Your task to perform on an android device: open app "Move to iOS" (install if not already installed) Image 0: 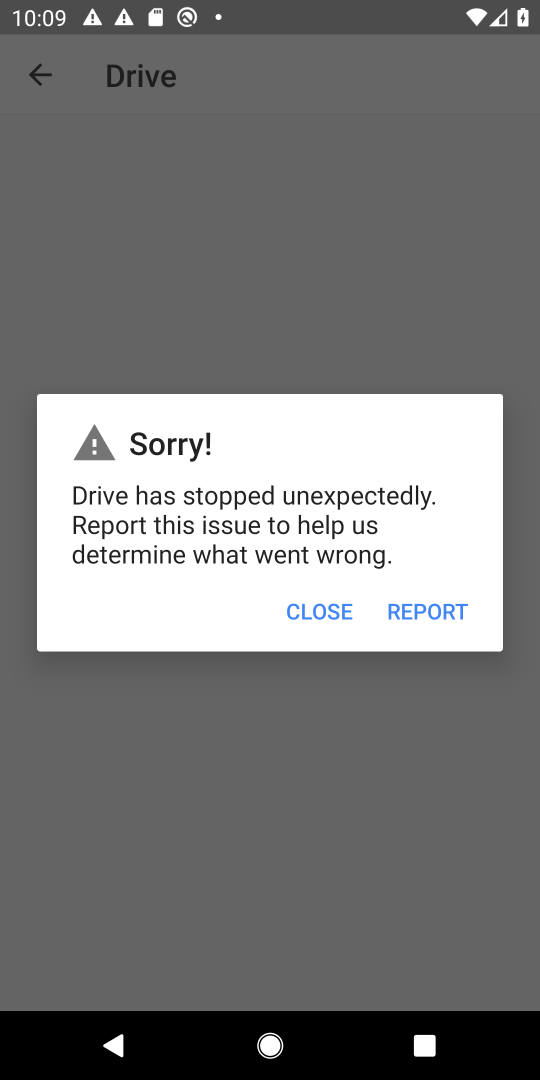
Step 0: press home button
Your task to perform on an android device: open app "Move to iOS" (install if not already installed) Image 1: 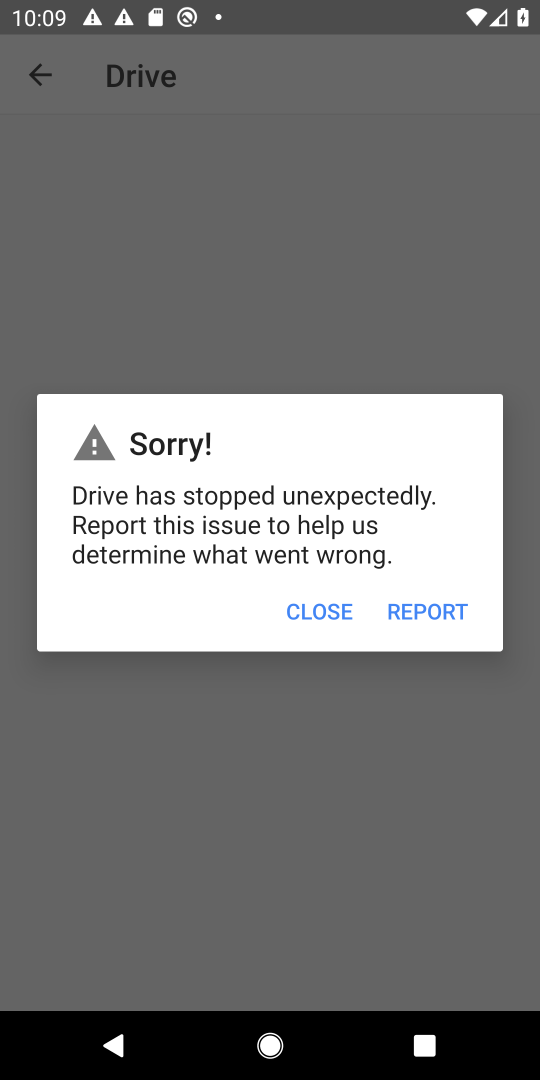
Step 1: press home button
Your task to perform on an android device: open app "Move to iOS" (install if not already installed) Image 2: 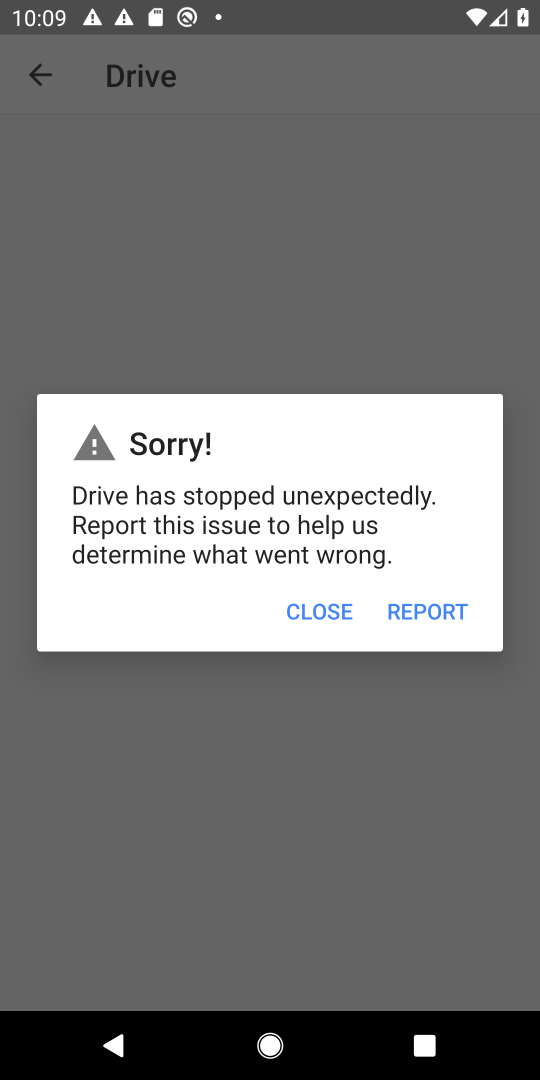
Step 2: drag from (358, 703) to (533, 177)
Your task to perform on an android device: open app "Move to iOS" (install if not already installed) Image 3: 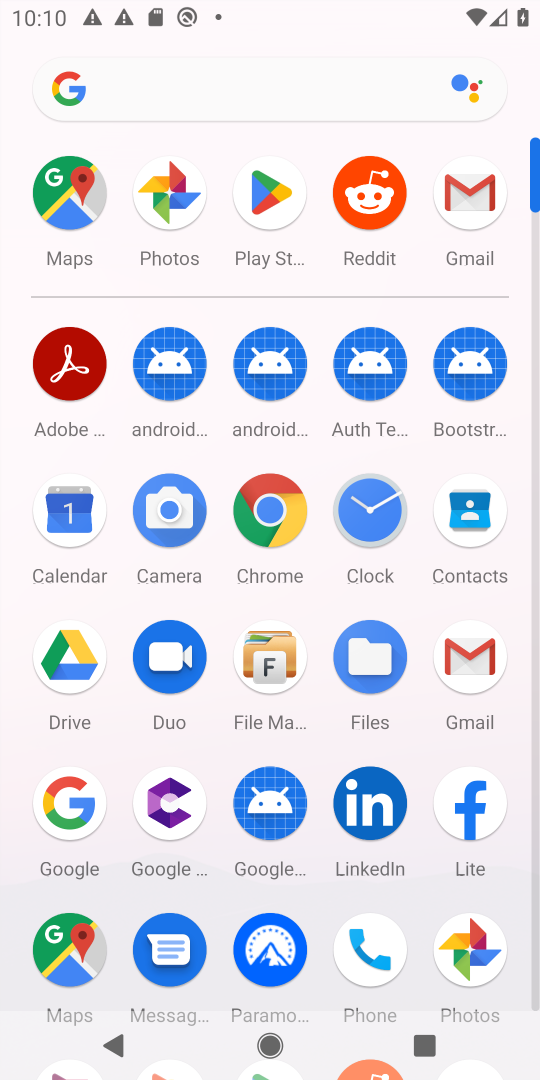
Step 3: press home button
Your task to perform on an android device: open app "Move to iOS" (install if not already installed) Image 4: 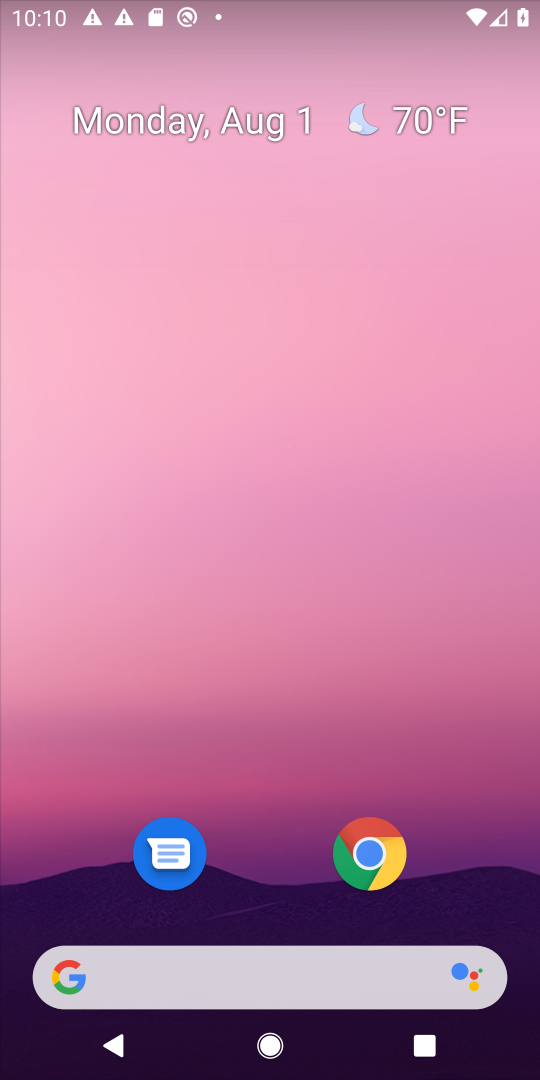
Step 4: drag from (288, 879) to (435, 58)
Your task to perform on an android device: open app "Move to iOS" (install if not already installed) Image 5: 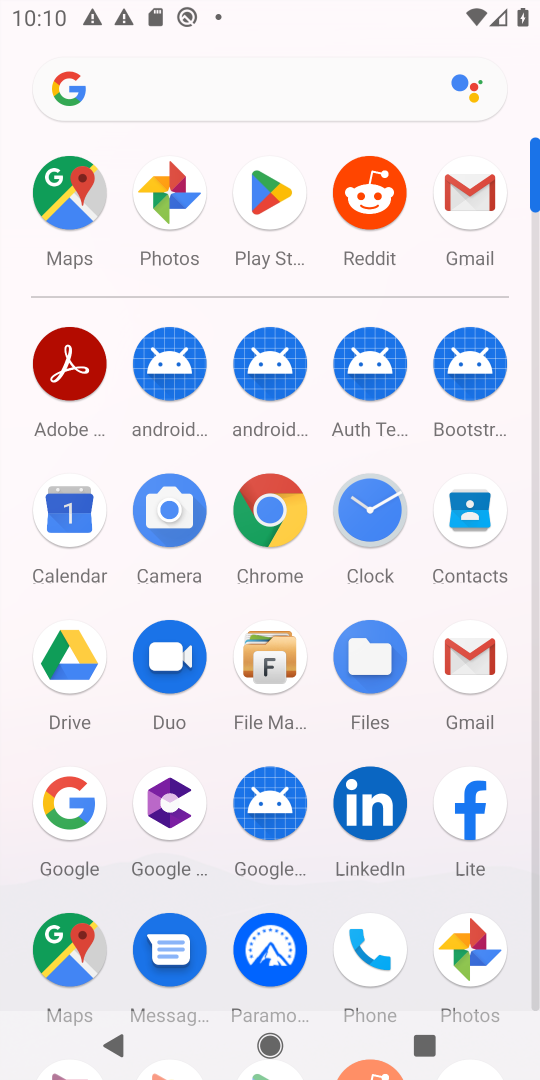
Step 5: click (266, 184)
Your task to perform on an android device: open app "Move to iOS" (install if not already installed) Image 6: 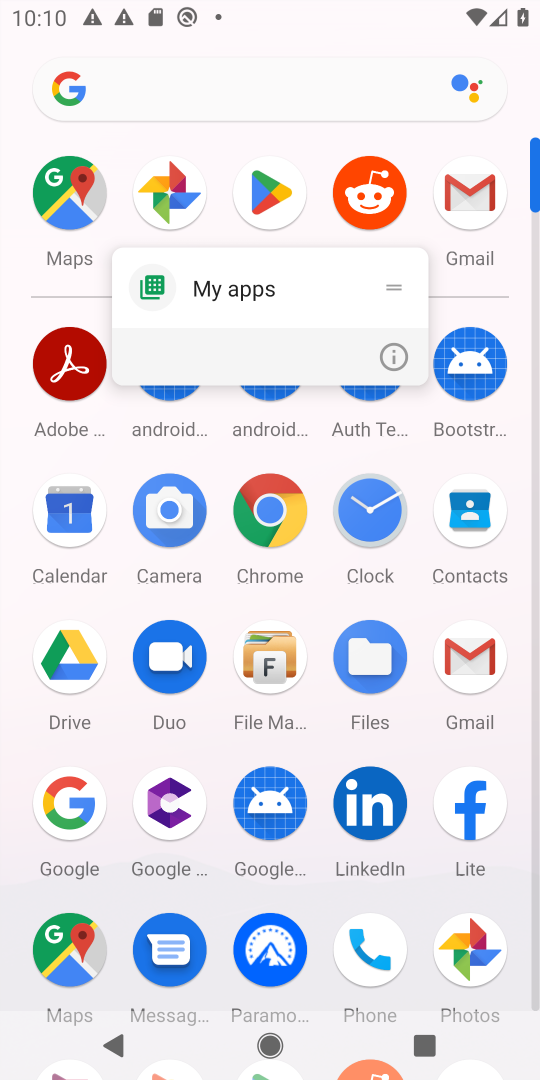
Step 6: click (395, 369)
Your task to perform on an android device: open app "Move to iOS" (install if not already installed) Image 7: 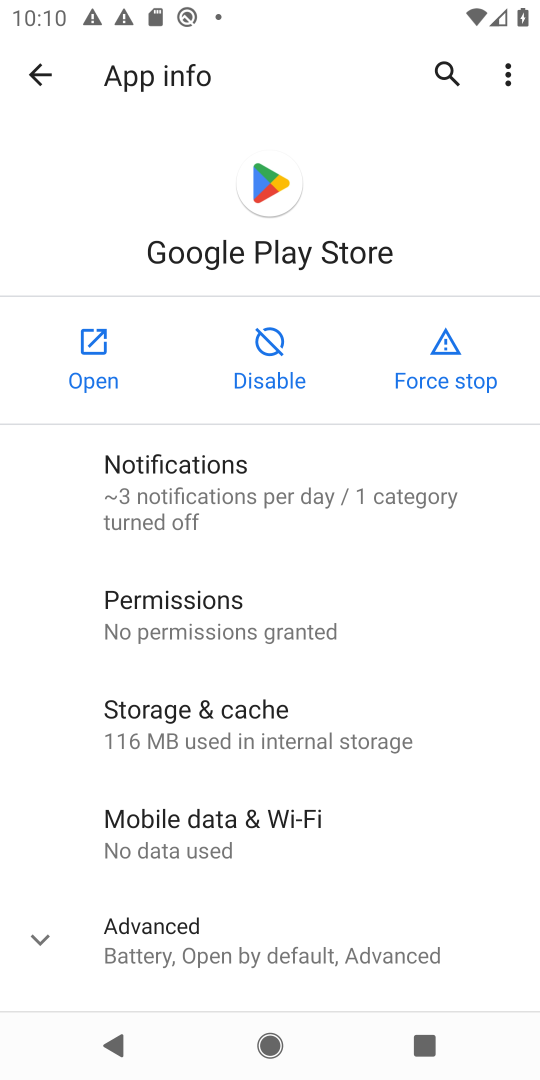
Step 7: click (90, 348)
Your task to perform on an android device: open app "Move to iOS" (install if not already installed) Image 8: 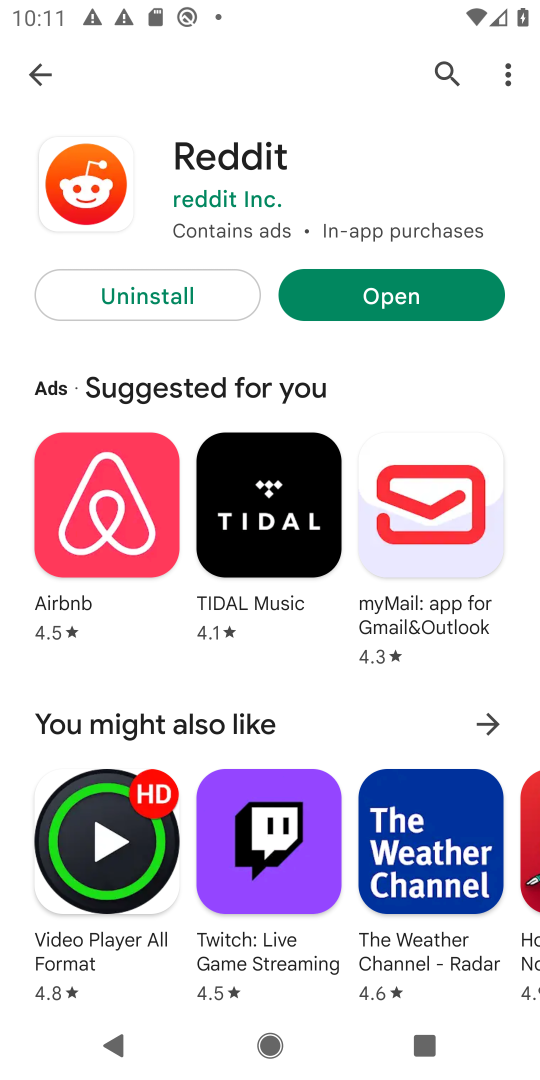
Step 8: drag from (285, 738) to (371, 311)
Your task to perform on an android device: open app "Move to iOS" (install if not already installed) Image 9: 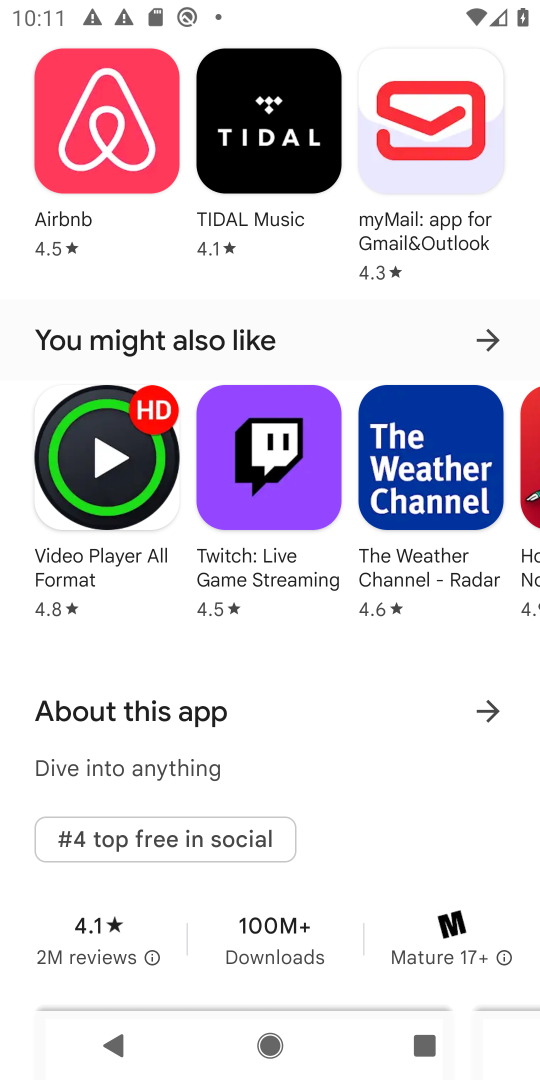
Step 9: drag from (374, 215) to (296, 1077)
Your task to perform on an android device: open app "Move to iOS" (install if not already installed) Image 10: 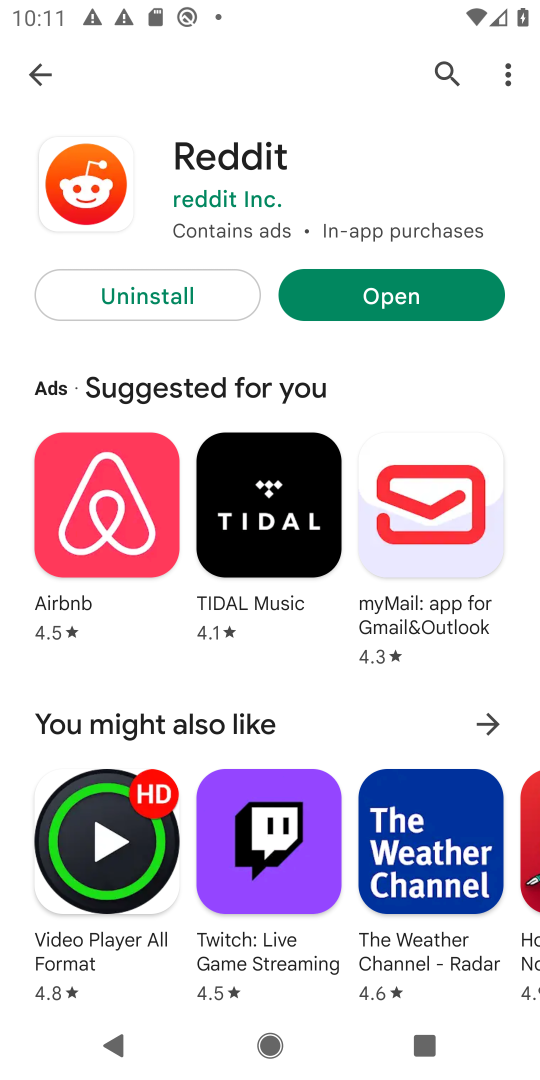
Step 10: press home button
Your task to perform on an android device: open app "Move to iOS" (install if not already installed) Image 11: 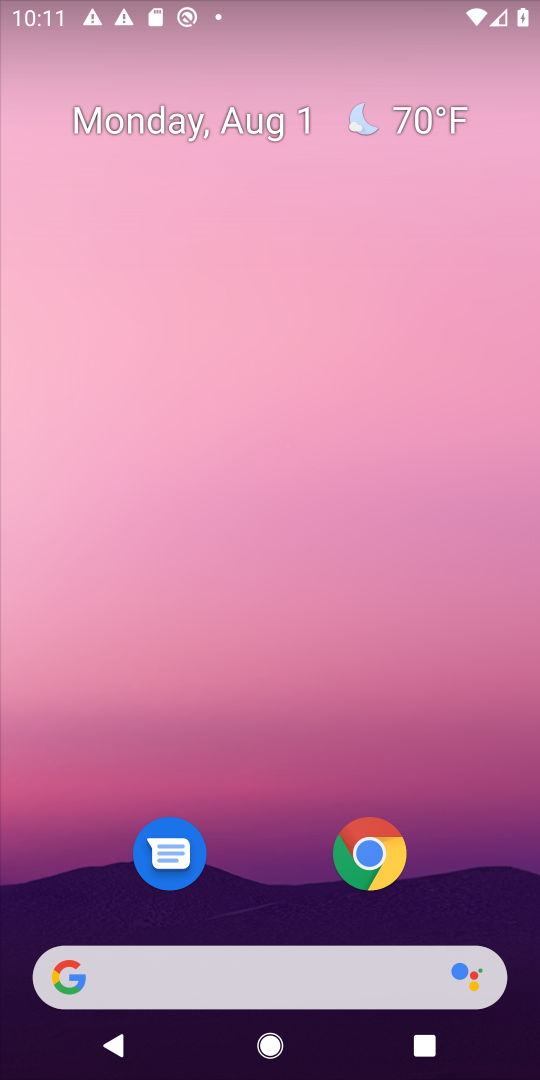
Step 11: drag from (295, 884) to (487, 242)
Your task to perform on an android device: open app "Move to iOS" (install if not already installed) Image 12: 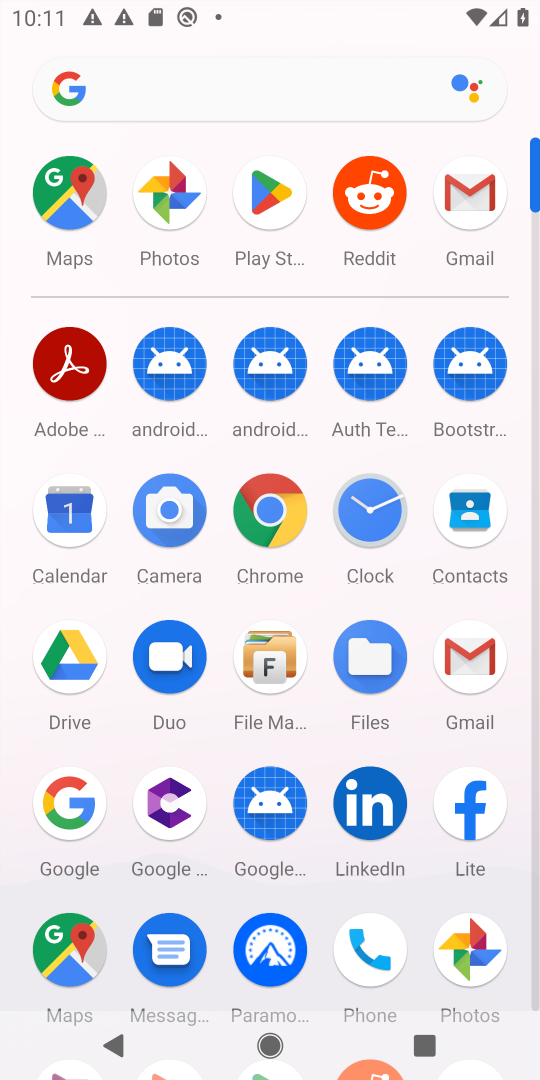
Step 12: click (278, 174)
Your task to perform on an android device: open app "Move to iOS" (install if not already installed) Image 13: 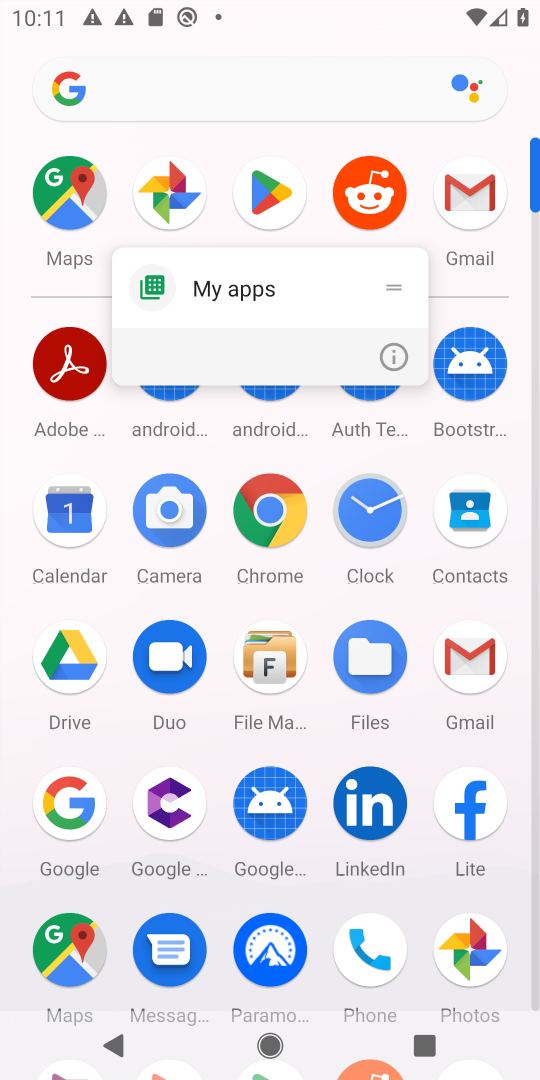
Step 13: click (393, 341)
Your task to perform on an android device: open app "Move to iOS" (install if not already installed) Image 14: 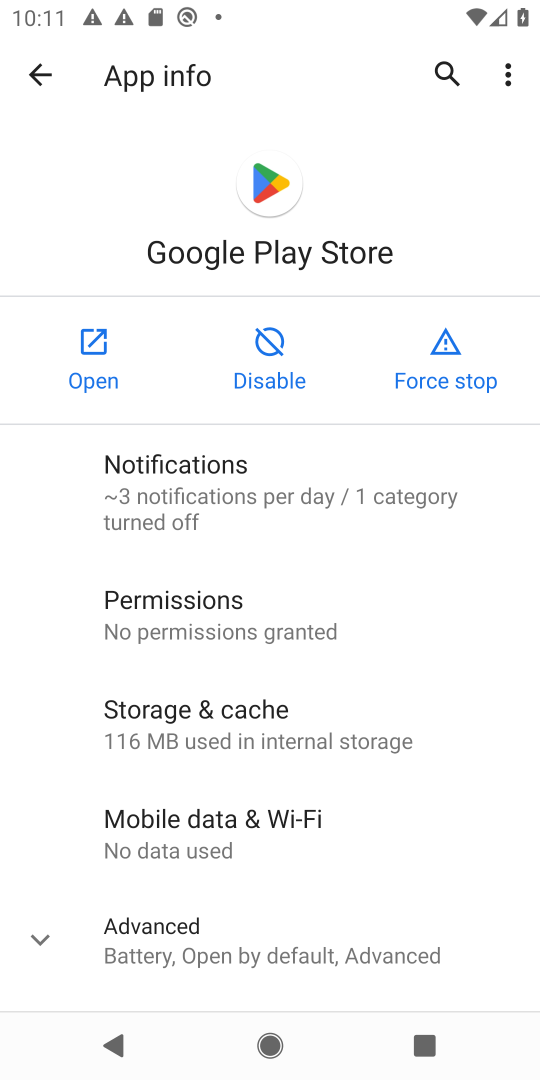
Step 14: click (83, 336)
Your task to perform on an android device: open app "Move to iOS" (install if not already installed) Image 15: 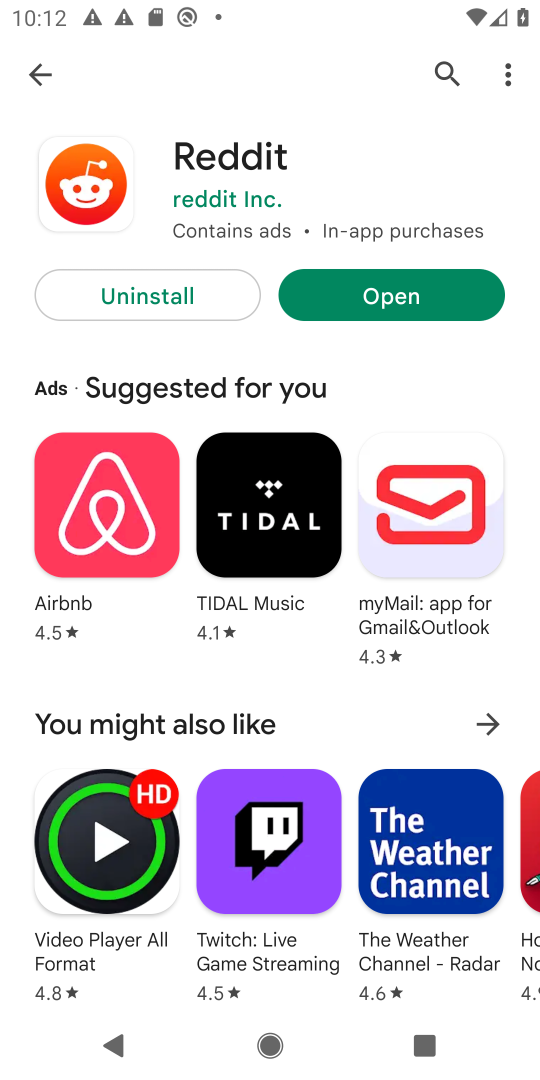
Step 15: click (440, 67)
Your task to perform on an android device: open app "Move to iOS" (install if not already installed) Image 16: 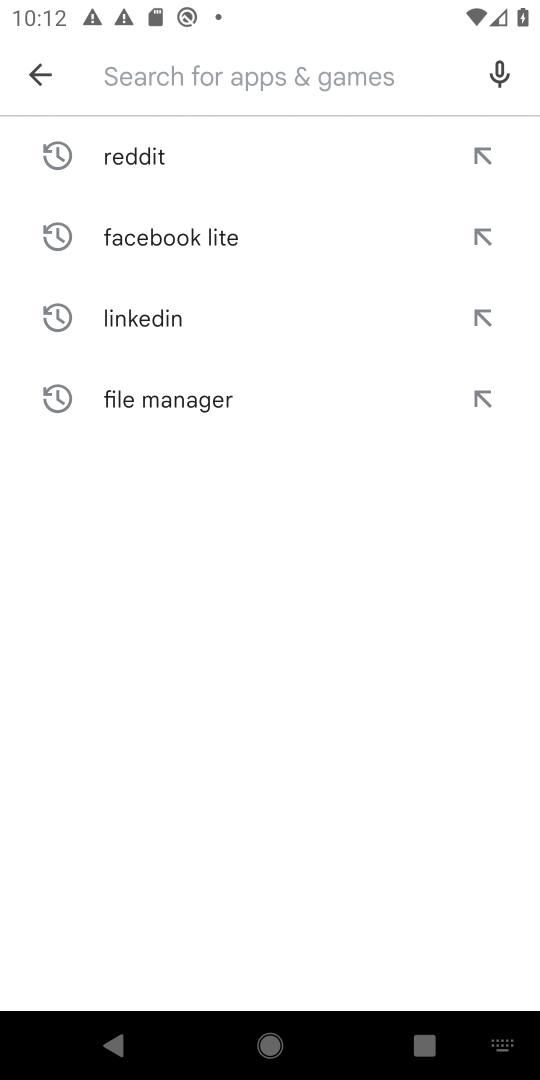
Step 16: type "Move to iOS"
Your task to perform on an android device: open app "Move to iOS" (install if not already installed) Image 17: 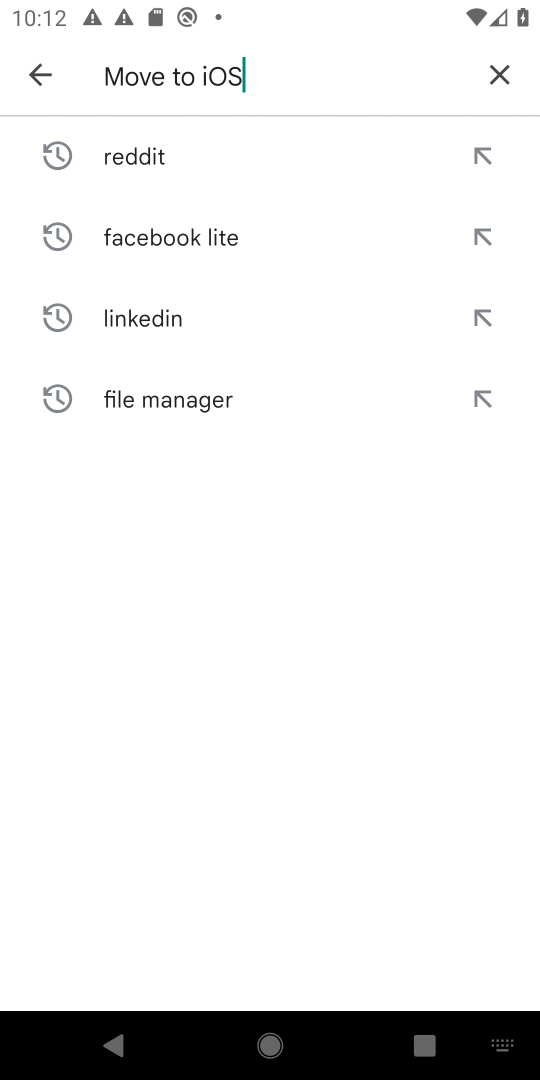
Step 17: type ""
Your task to perform on an android device: open app "Move to iOS" (install if not already installed) Image 18: 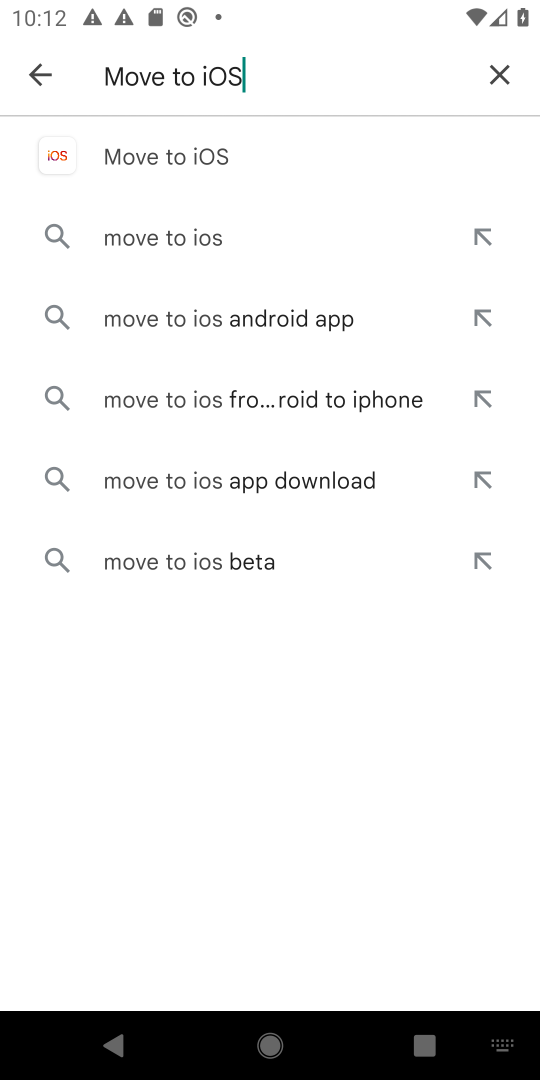
Step 18: click (314, 154)
Your task to perform on an android device: open app "Move to iOS" (install if not already installed) Image 19: 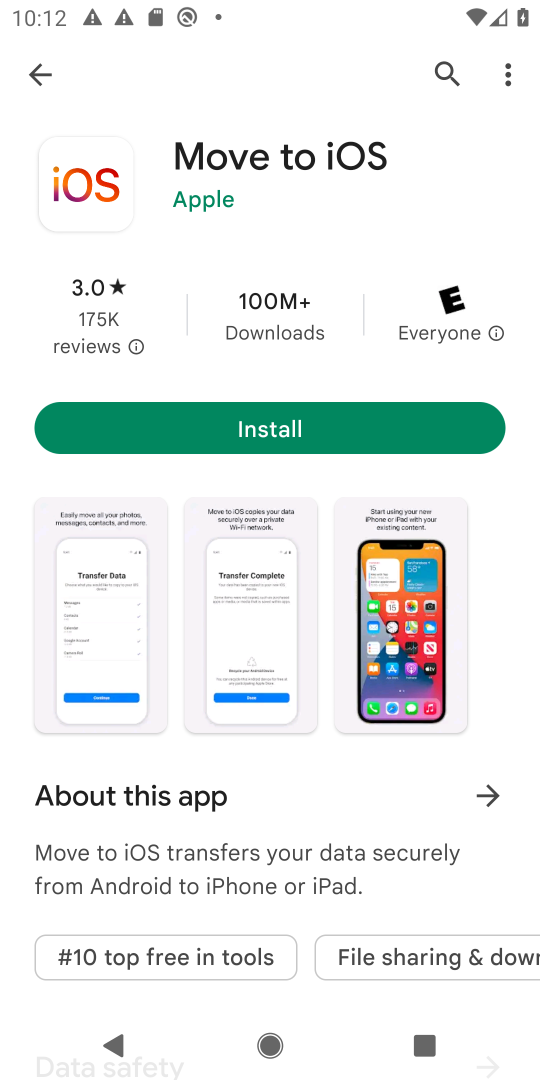
Step 19: click (286, 428)
Your task to perform on an android device: open app "Move to iOS" (install if not already installed) Image 20: 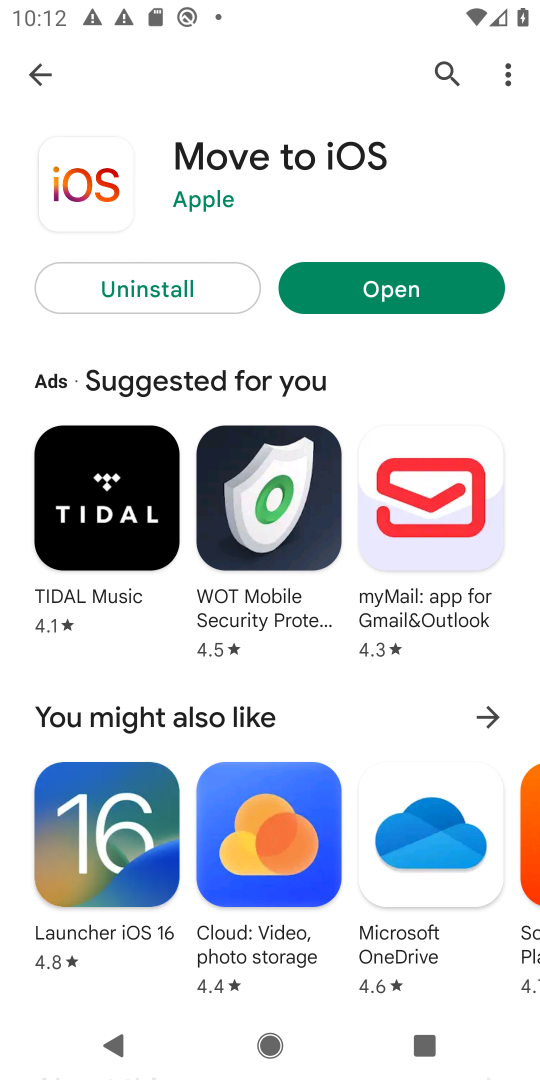
Step 20: click (386, 289)
Your task to perform on an android device: open app "Move to iOS" (install if not already installed) Image 21: 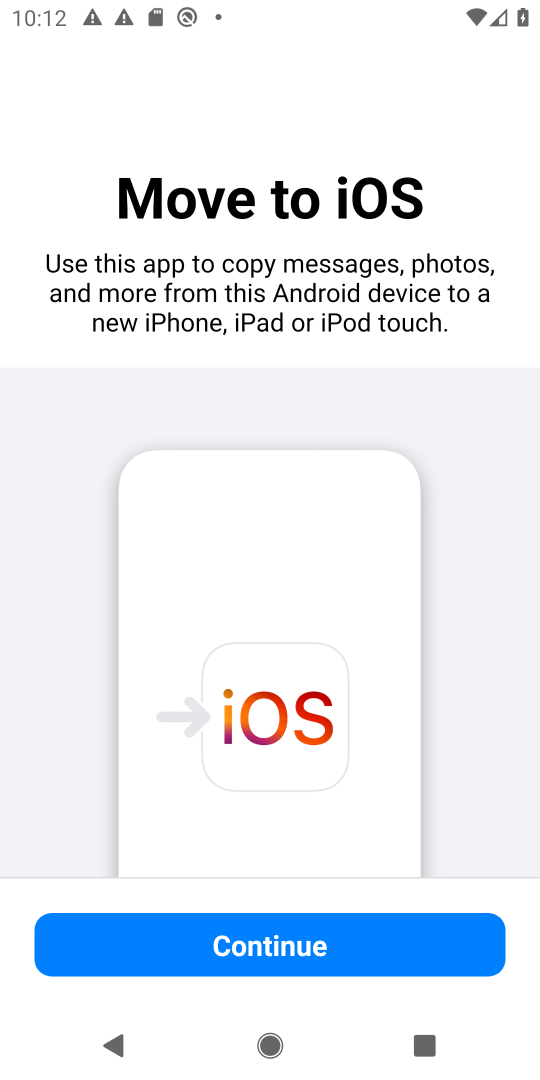
Step 21: task complete